Your task to perform on an android device: Open Google Maps and go to "Timeline" Image 0: 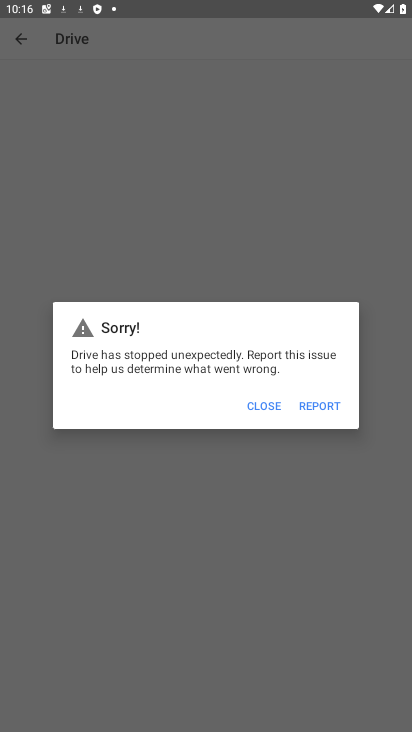
Step 0: press home button
Your task to perform on an android device: Open Google Maps and go to "Timeline" Image 1: 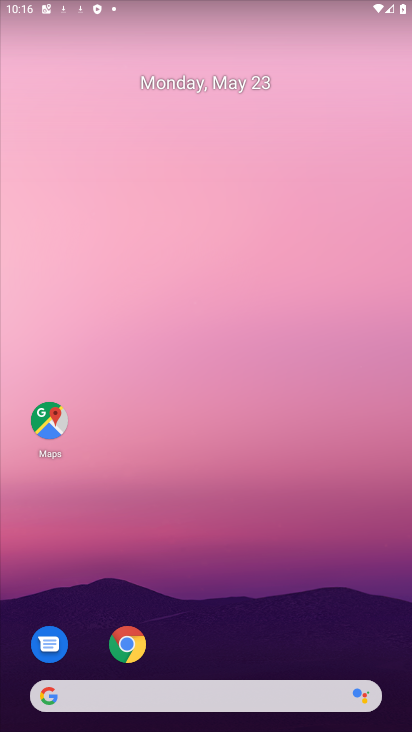
Step 1: drag from (316, 714) to (260, 190)
Your task to perform on an android device: Open Google Maps and go to "Timeline" Image 2: 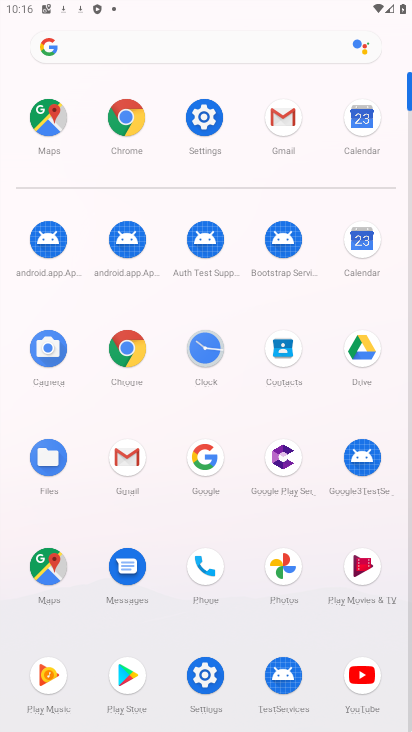
Step 2: click (46, 131)
Your task to perform on an android device: Open Google Maps and go to "Timeline" Image 3: 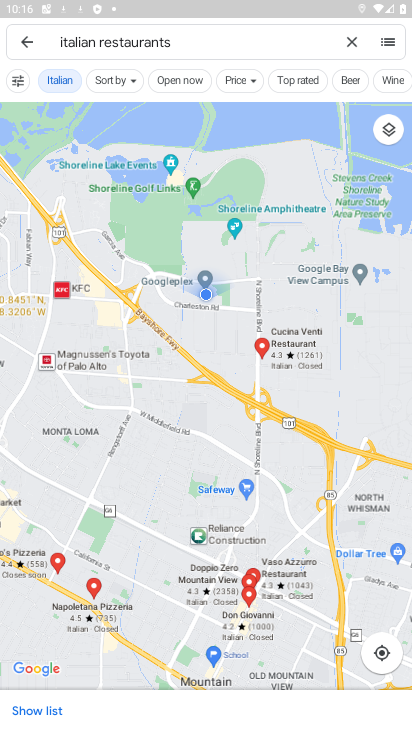
Step 3: click (22, 33)
Your task to perform on an android device: Open Google Maps and go to "Timeline" Image 4: 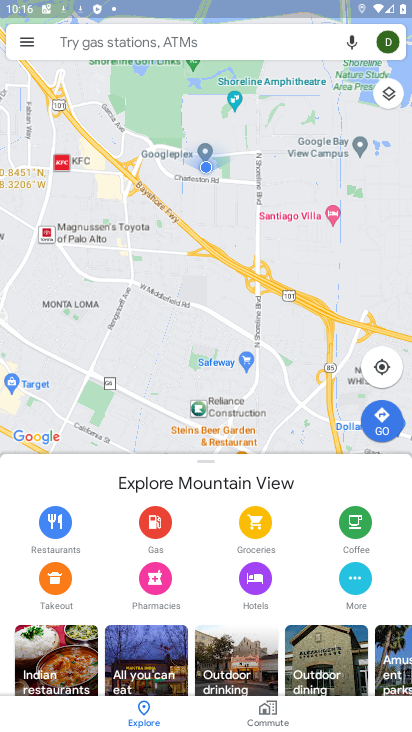
Step 4: click (32, 48)
Your task to perform on an android device: Open Google Maps and go to "Timeline" Image 5: 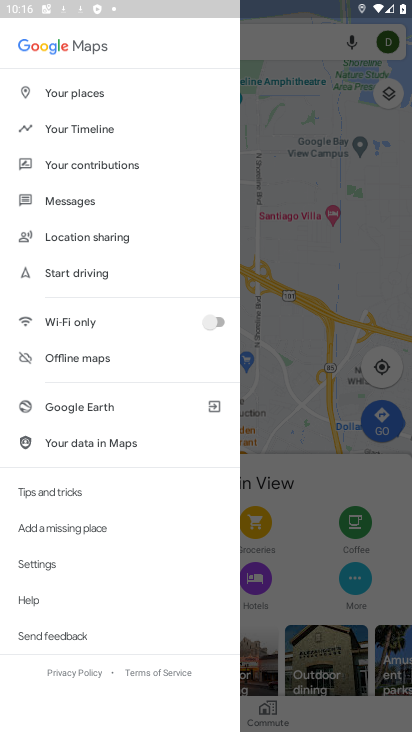
Step 5: click (99, 131)
Your task to perform on an android device: Open Google Maps and go to "Timeline" Image 6: 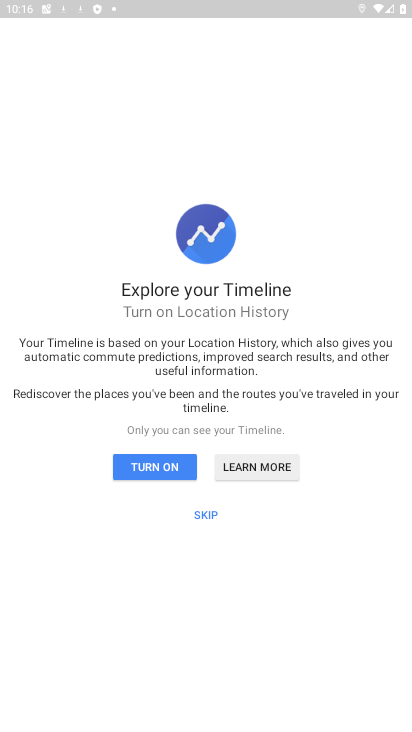
Step 6: click (210, 505)
Your task to perform on an android device: Open Google Maps and go to "Timeline" Image 7: 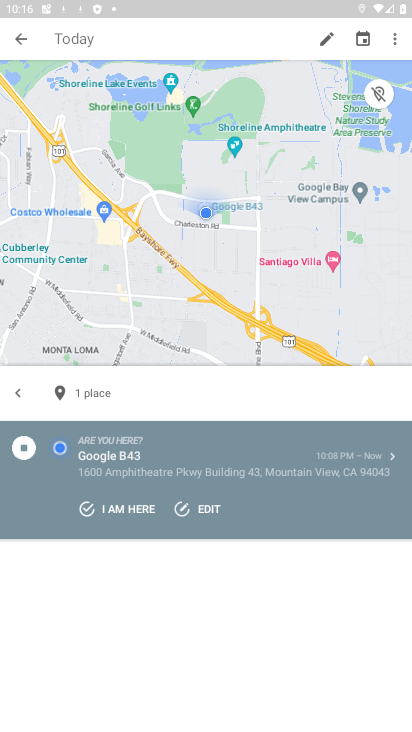
Step 7: task complete